Your task to perform on an android device: Go to sound settings Image 0: 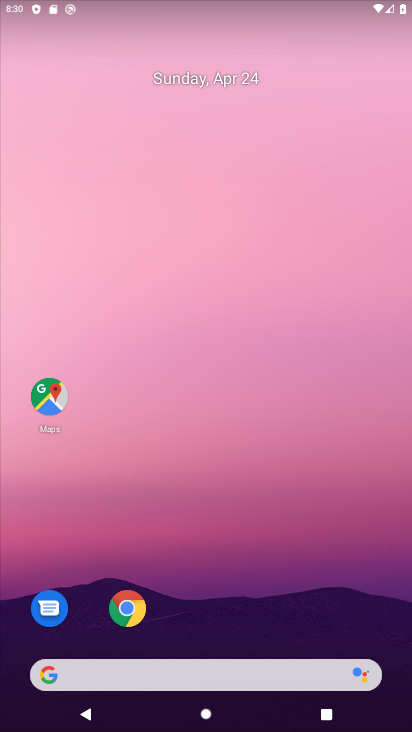
Step 0: drag from (289, 594) to (240, 119)
Your task to perform on an android device: Go to sound settings Image 1: 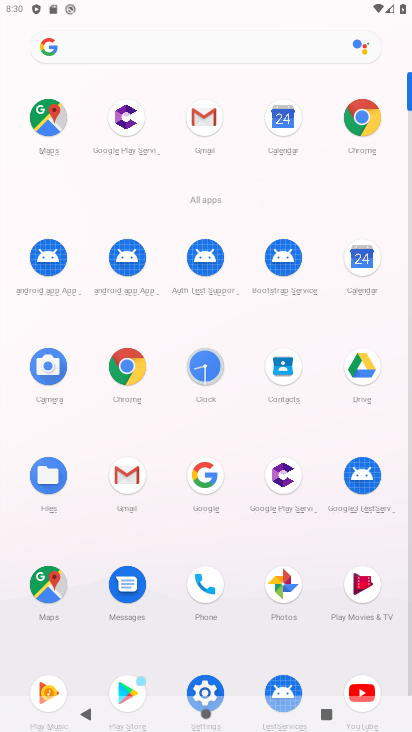
Step 1: click (202, 679)
Your task to perform on an android device: Go to sound settings Image 2: 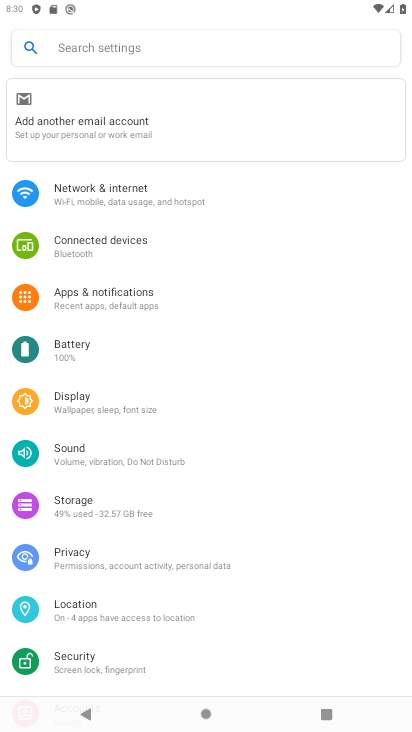
Step 2: click (138, 49)
Your task to perform on an android device: Go to sound settings Image 3: 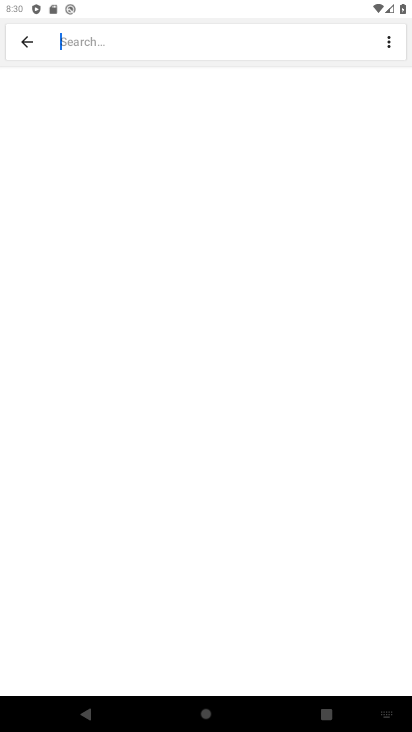
Step 3: click (388, 711)
Your task to perform on an android device: Go to sound settings Image 4: 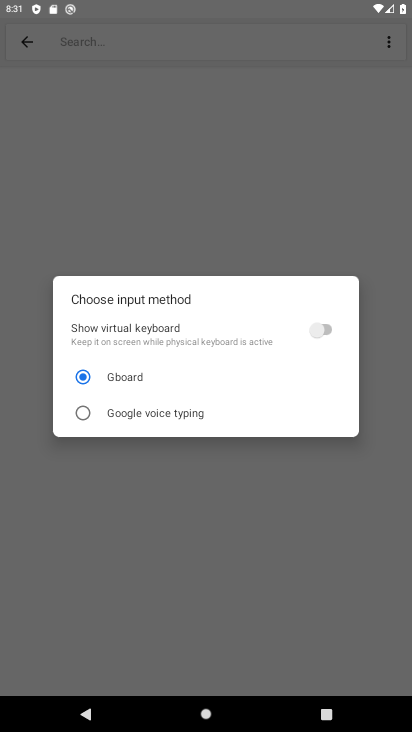
Step 4: click (327, 327)
Your task to perform on an android device: Go to sound settings Image 5: 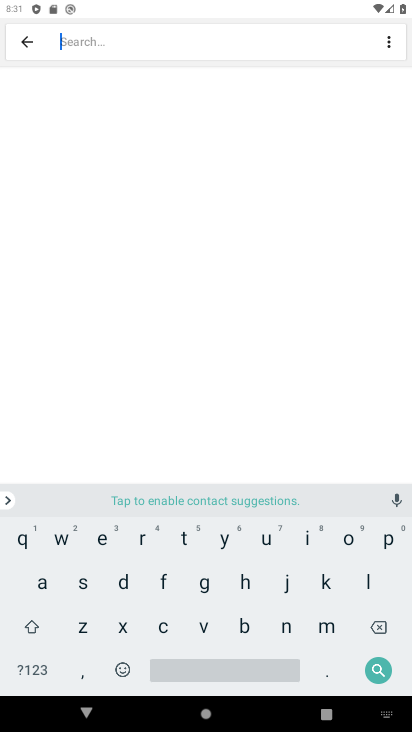
Step 5: click (81, 574)
Your task to perform on an android device: Go to sound settings Image 6: 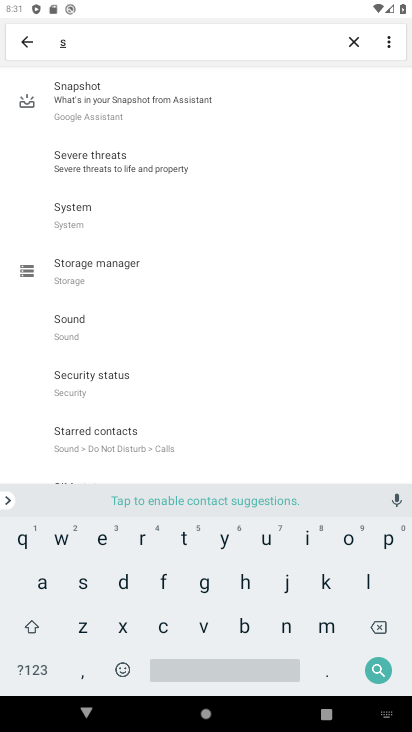
Step 6: click (343, 545)
Your task to perform on an android device: Go to sound settings Image 7: 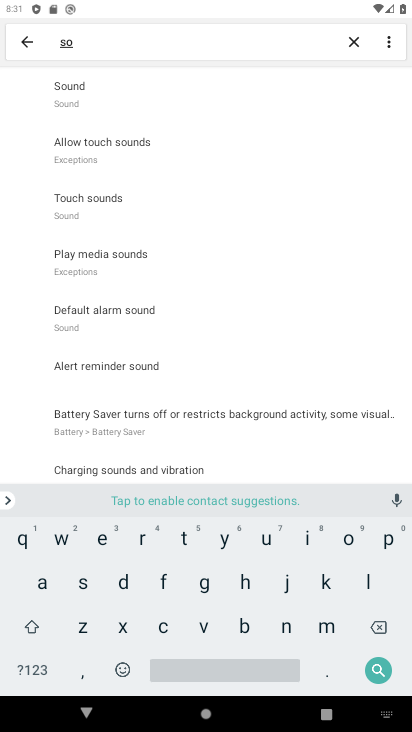
Step 7: click (124, 102)
Your task to perform on an android device: Go to sound settings Image 8: 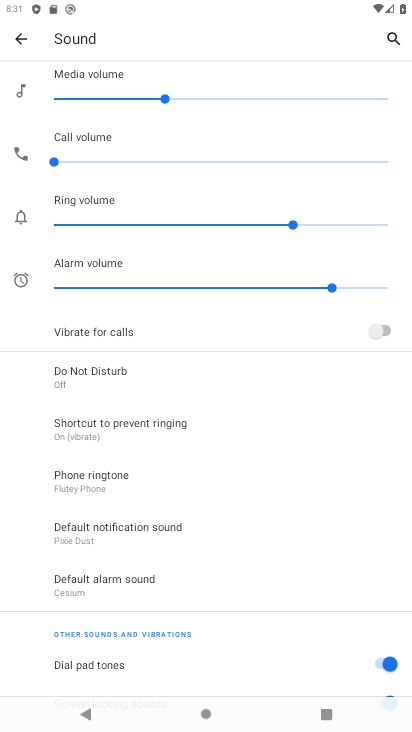
Step 8: task complete